Your task to perform on an android device: change timer sound Image 0: 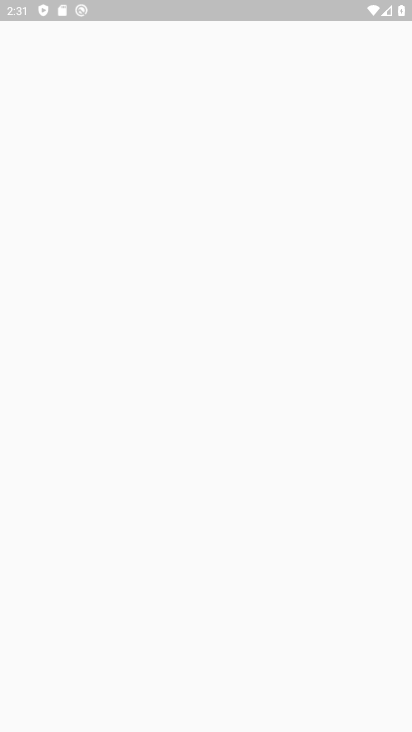
Step 0: press home button
Your task to perform on an android device: change timer sound Image 1: 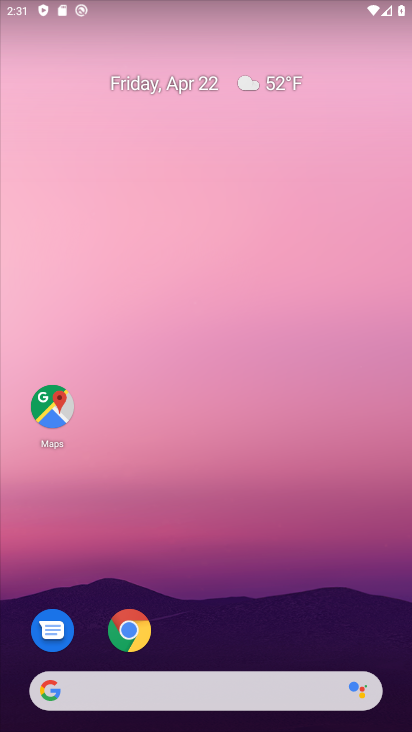
Step 1: drag from (324, 619) to (249, 26)
Your task to perform on an android device: change timer sound Image 2: 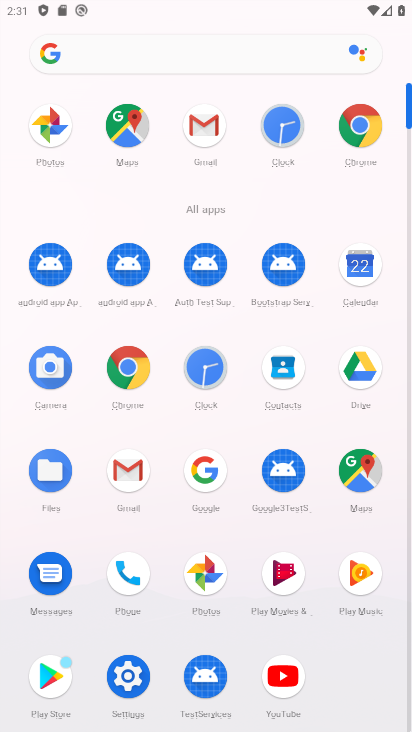
Step 2: click (408, 672)
Your task to perform on an android device: change timer sound Image 3: 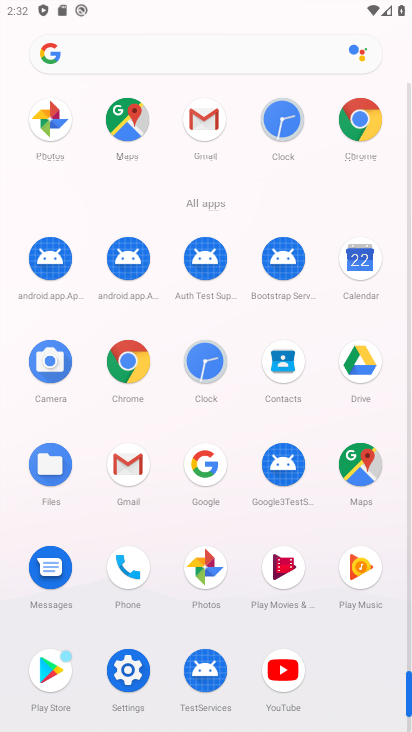
Step 3: click (130, 670)
Your task to perform on an android device: change timer sound Image 4: 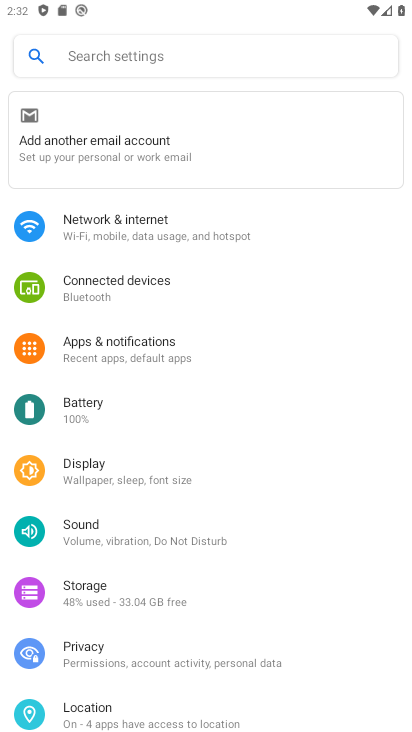
Step 4: click (94, 529)
Your task to perform on an android device: change timer sound Image 5: 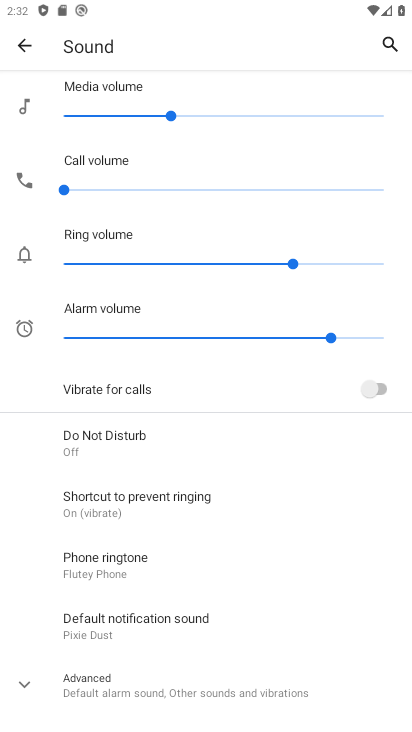
Step 5: drag from (236, 573) to (394, 168)
Your task to perform on an android device: change timer sound Image 6: 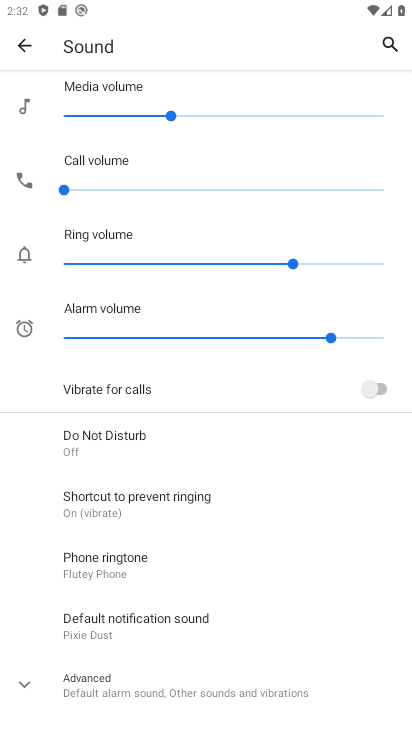
Step 6: click (53, 684)
Your task to perform on an android device: change timer sound Image 7: 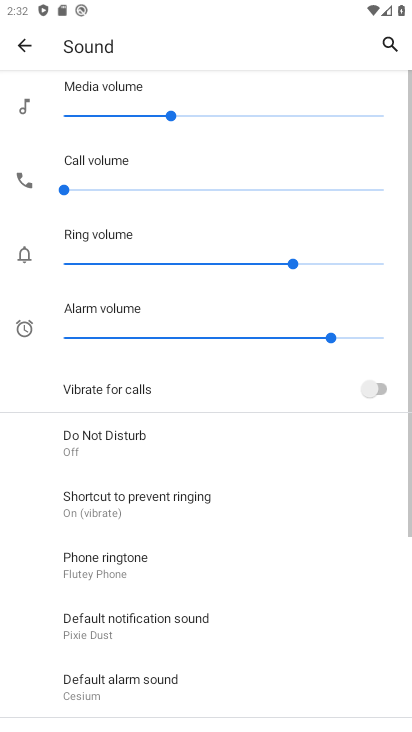
Step 7: task complete